Your task to perform on an android device: Open CNN.com Image 0: 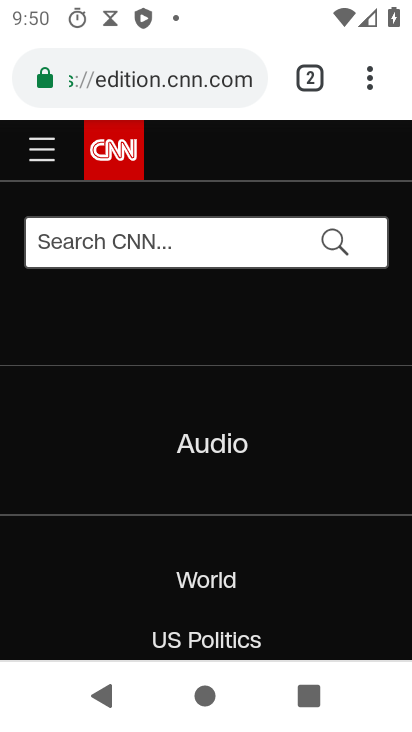
Step 0: drag from (242, 168) to (252, 390)
Your task to perform on an android device: Open CNN.com Image 1: 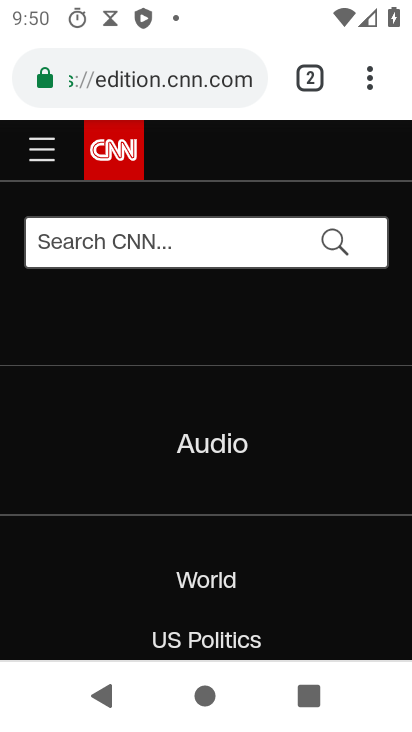
Step 1: task complete